Your task to perform on an android device: turn on showing notifications on the lock screen Image 0: 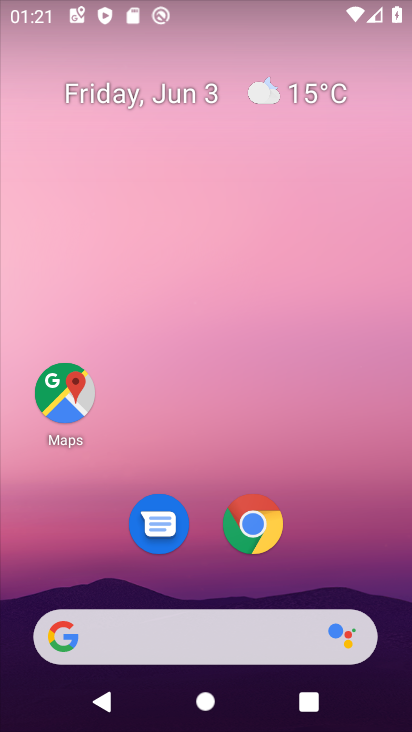
Step 0: drag from (210, 454) to (199, 3)
Your task to perform on an android device: turn on showing notifications on the lock screen Image 1: 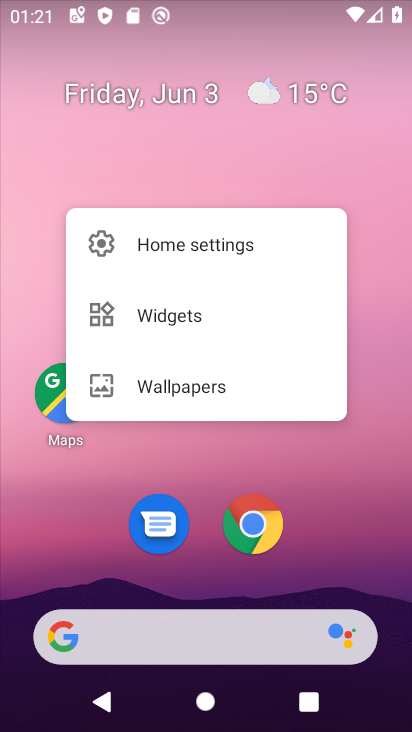
Step 1: click (340, 530)
Your task to perform on an android device: turn on showing notifications on the lock screen Image 2: 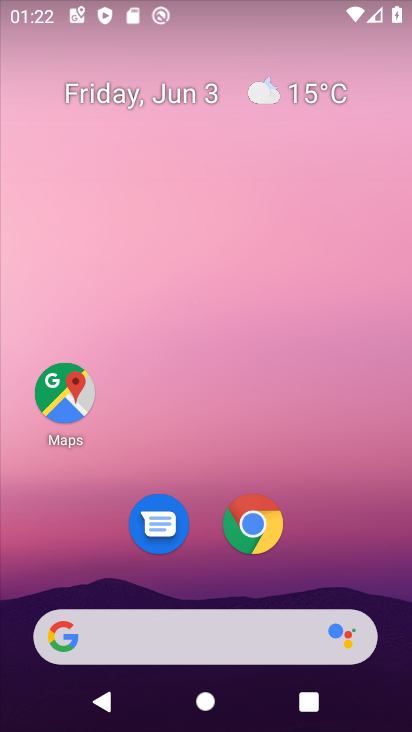
Step 2: drag from (340, 529) to (345, 8)
Your task to perform on an android device: turn on showing notifications on the lock screen Image 3: 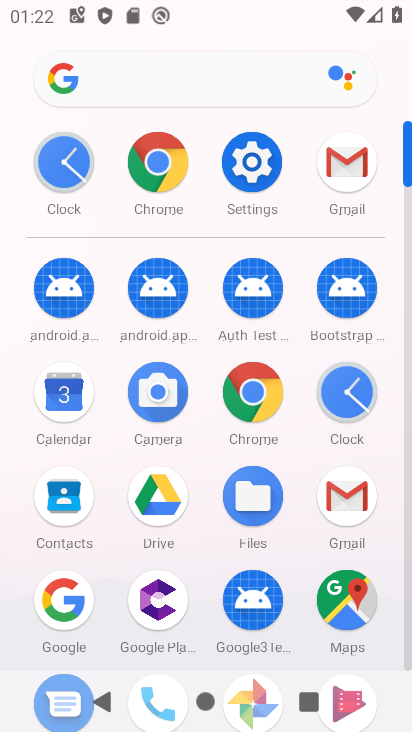
Step 3: click (270, 158)
Your task to perform on an android device: turn on showing notifications on the lock screen Image 4: 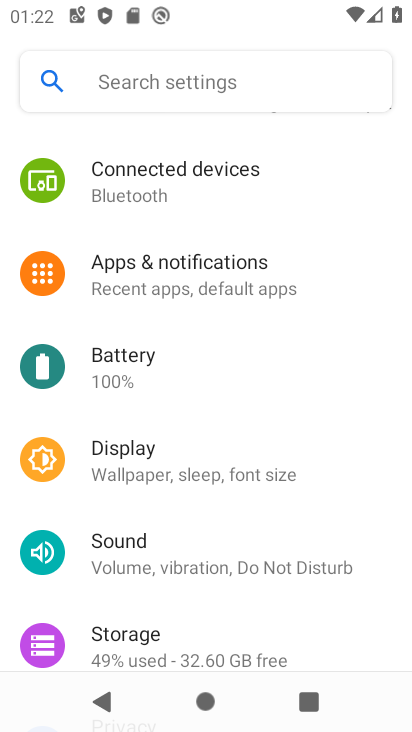
Step 4: click (227, 280)
Your task to perform on an android device: turn on showing notifications on the lock screen Image 5: 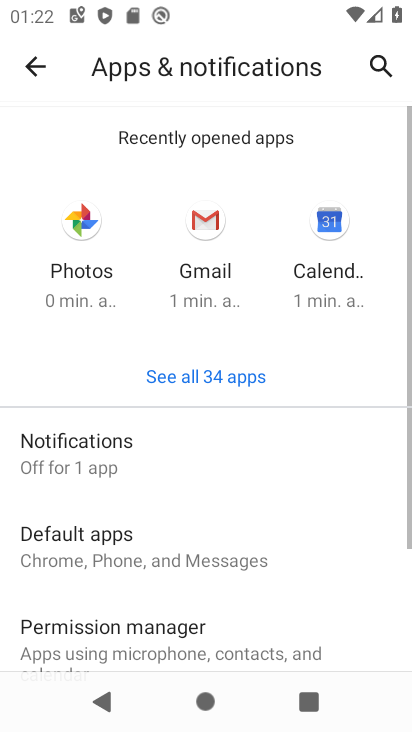
Step 5: click (219, 443)
Your task to perform on an android device: turn on showing notifications on the lock screen Image 6: 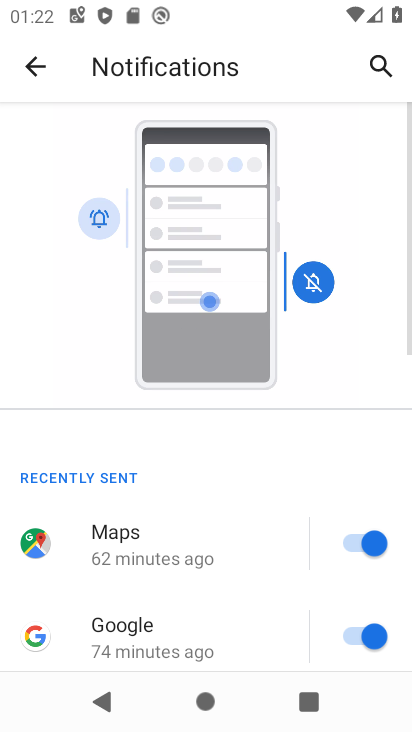
Step 6: drag from (227, 579) to (245, 106)
Your task to perform on an android device: turn on showing notifications on the lock screen Image 7: 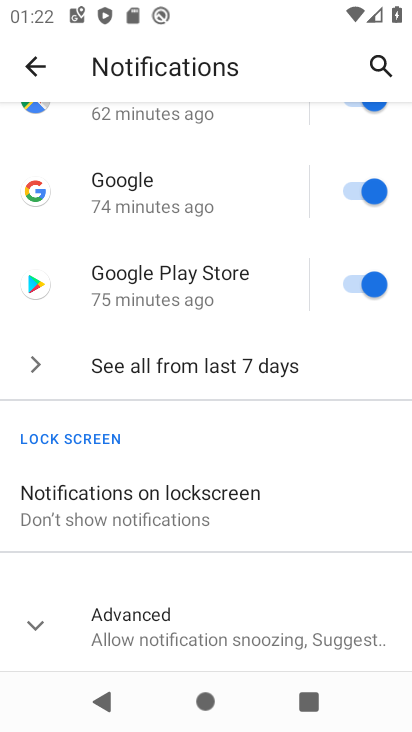
Step 7: click (182, 508)
Your task to perform on an android device: turn on showing notifications on the lock screen Image 8: 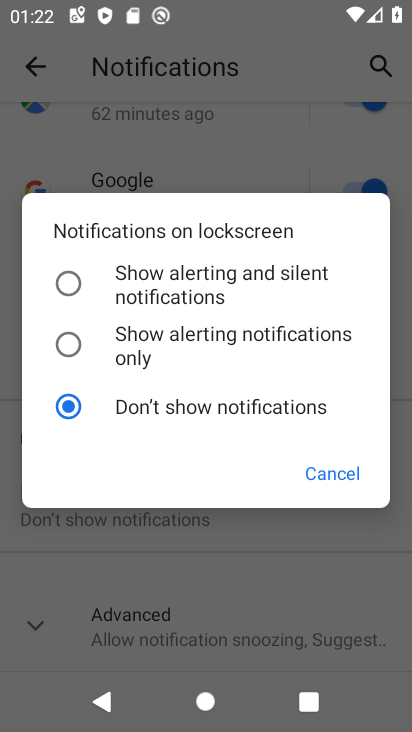
Step 8: click (60, 264)
Your task to perform on an android device: turn on showing notifications on the lock screen Image 9: 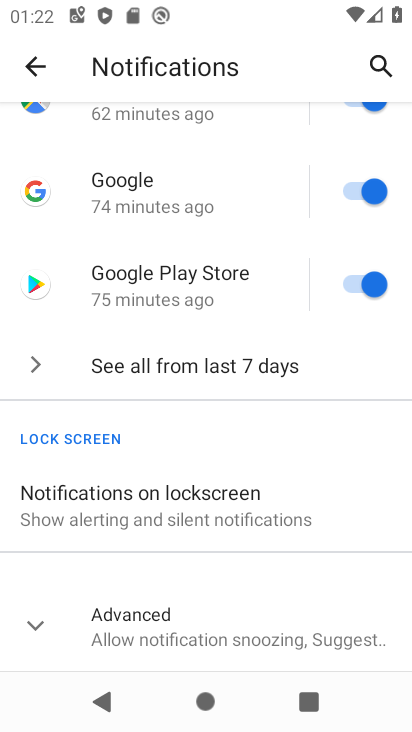
Step 9: task complete